Your task to perform on an android device: clear history in the chrome app Image 0: 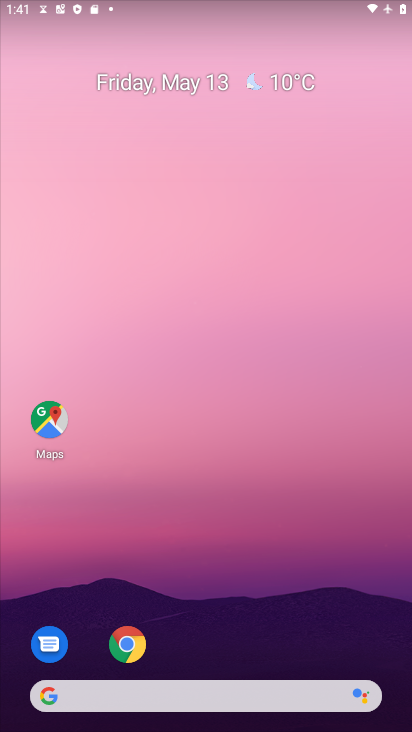
Step 0: click (128, 644)
Your task to perform on an android device: clear history in the chrome app Image 1: 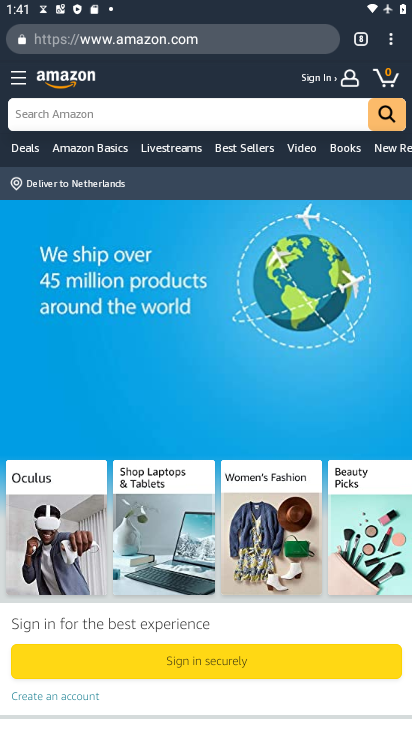
Step 1: click (391, 46)
Your task to perform on an android device: clear history in the chrome app Image 2: 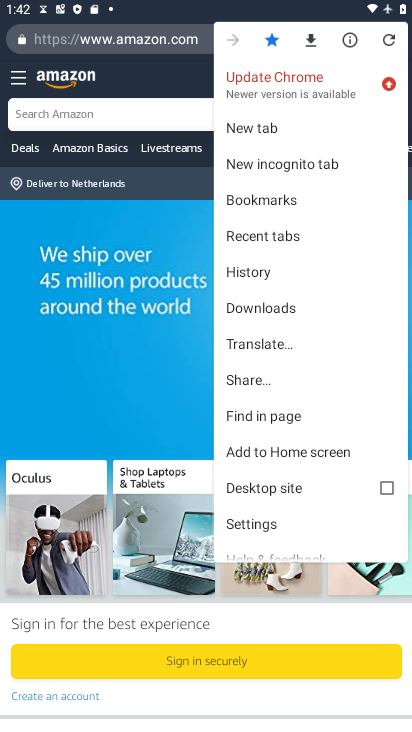
Step 2: click (256, 272)
Your task to perform on an android device: clear history in the chrome app Image 3: 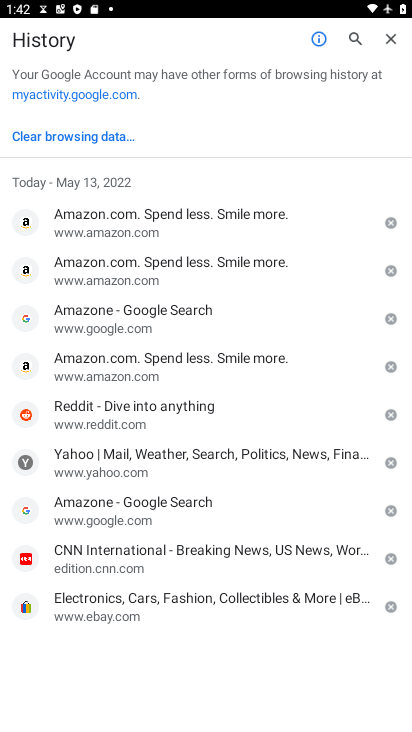
Step 3: click (96, 134)
Your task to perform on an android device: clear history in the chrome app Image 4: 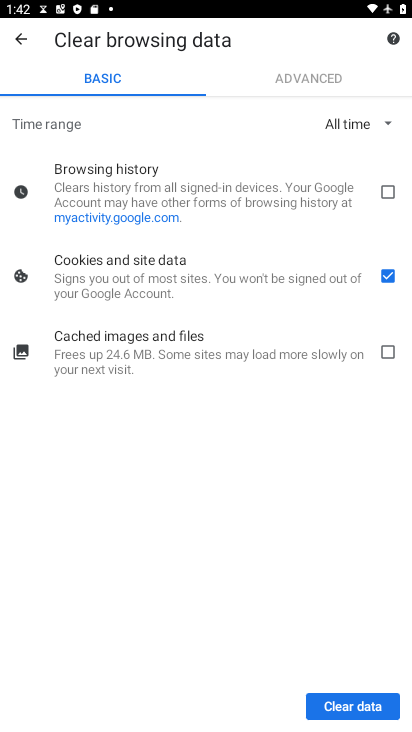
Step 4: click (384, 187)
Your task to perform on an android device: clear history in the chrome app Image 5: 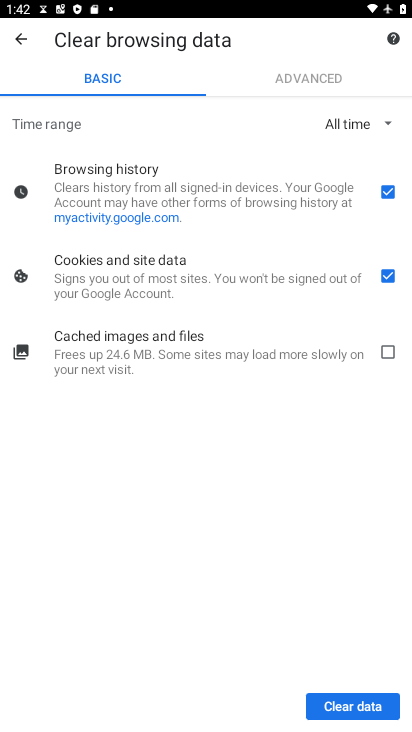
Step 5: click (389, 277)
Your task to perform on an android device: clear history in the chrome app Image 6: 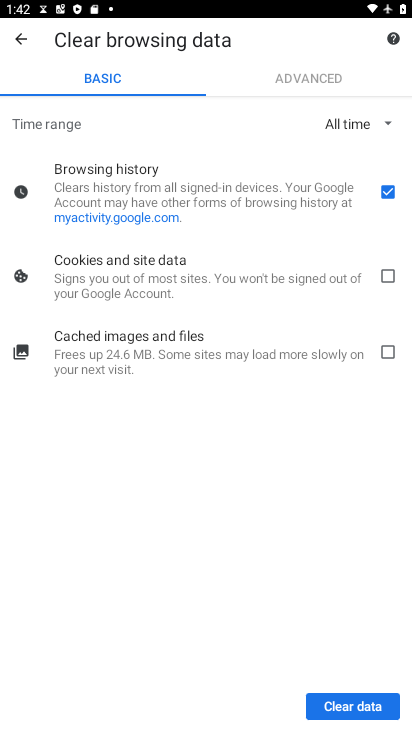
Step 6: click (354, 705)
Your task to perform on an android device: clear history in the chrome app Image 7: 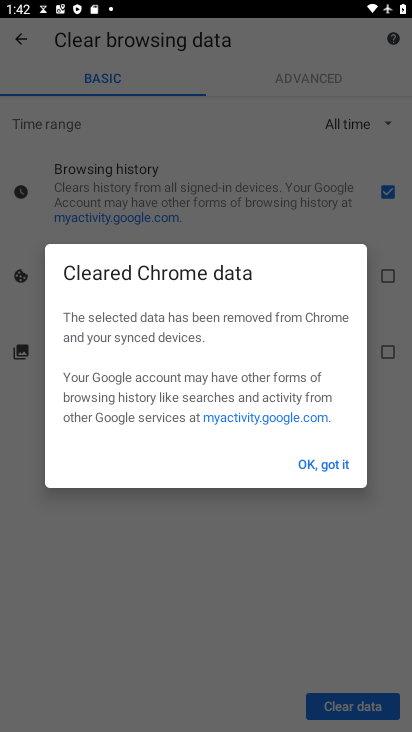
Step 7: click (325, 459)
Your task to perform on an android device: clear history in the chrome app Image 8: 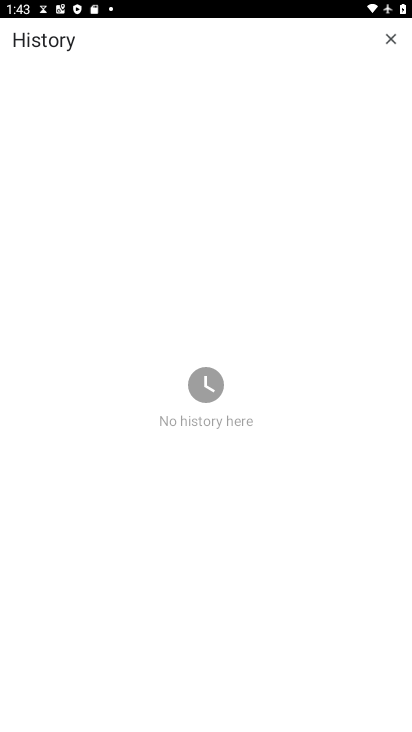
Step 8: task complete